Your task to perform on an android device: Go to Wikipedia Image 0: 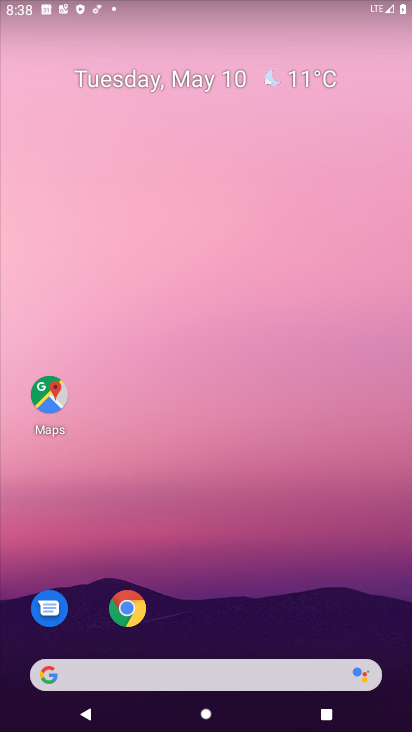
Step 0: press home button
Your task to perform on an android device: Go to Wikipedia Image 1: 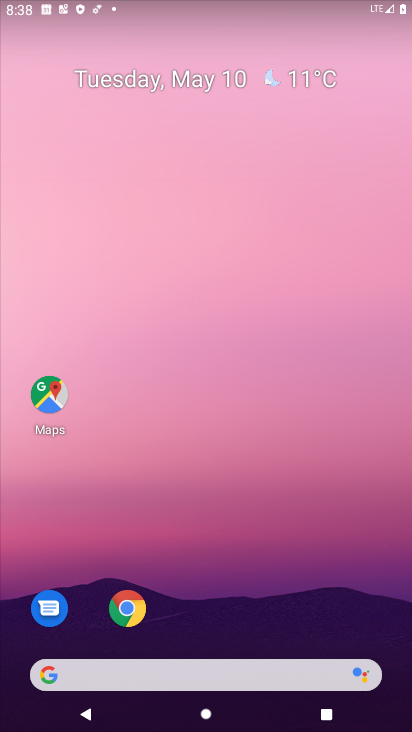
Step 1: click (129, 617)
Your task to perform on an android device: Go to Wikipedia Image 2: 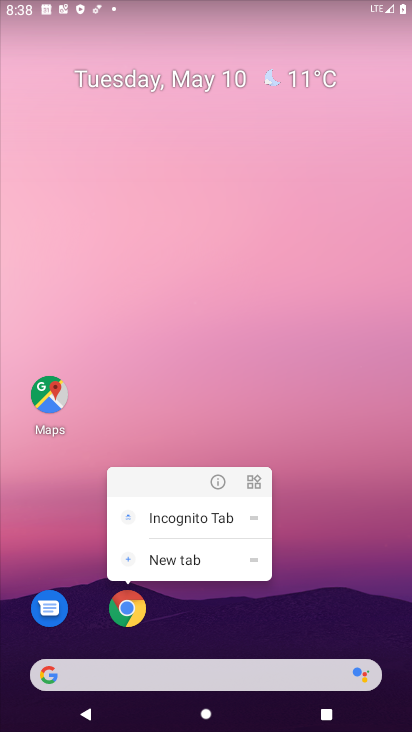
Step 2: click (130, 610)
Your task to perform on an android device: Go to Wikipedia Image 3: 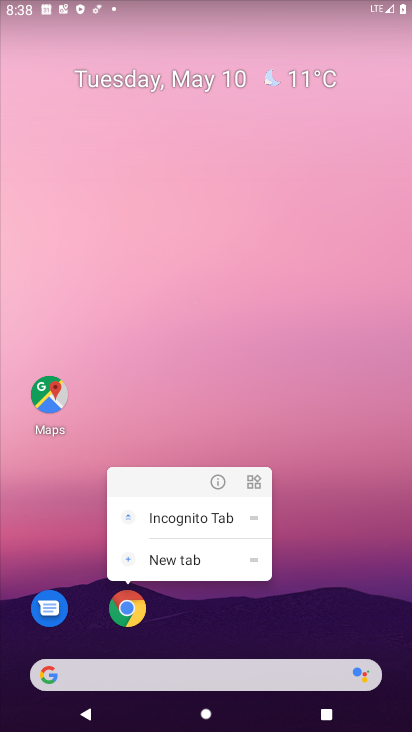
Step 3: click (145, 594)
Your task to perform on an android device: Go to Wikipedia Image 4: 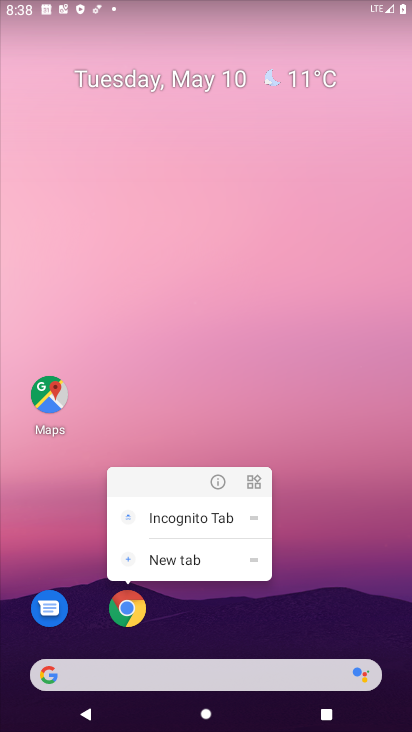
Step 4: click (144, 598)
Your task to perform on an android device: Go to Wikipedia Image 5: 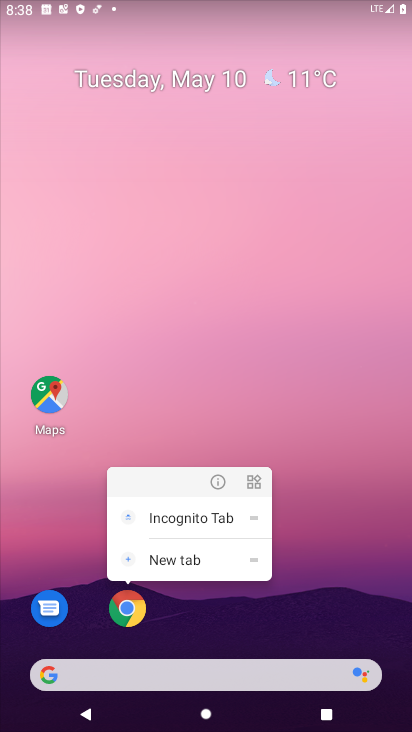
Step 5: drag from (193, 671) to (314, 176)
Your task to perform on an android device: Go to Wikipedia Image 6: 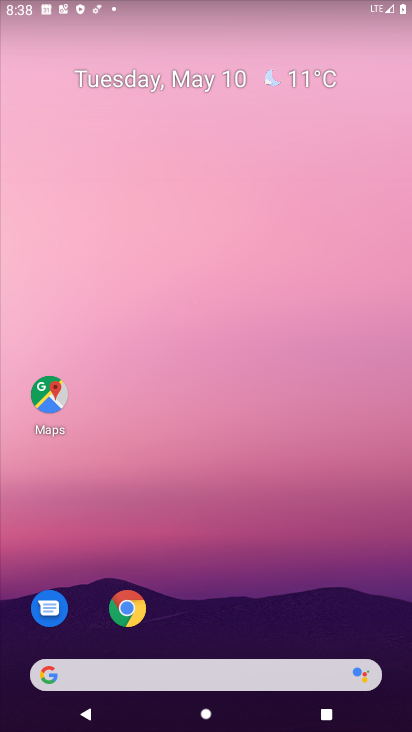
Step 6: drag from (187, 675) to (351, 120)
Your task to perform on an android device: Go to Wikipedia Image 7: 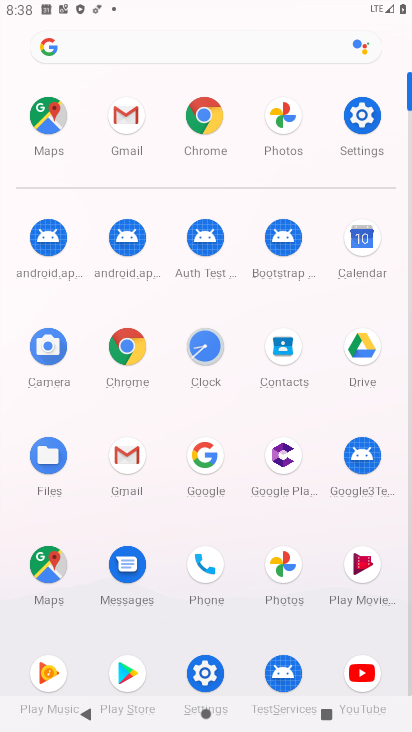
Step 7: click (206, 121)
Your task to perform on an android device: Go to Wikipedia Image 8: 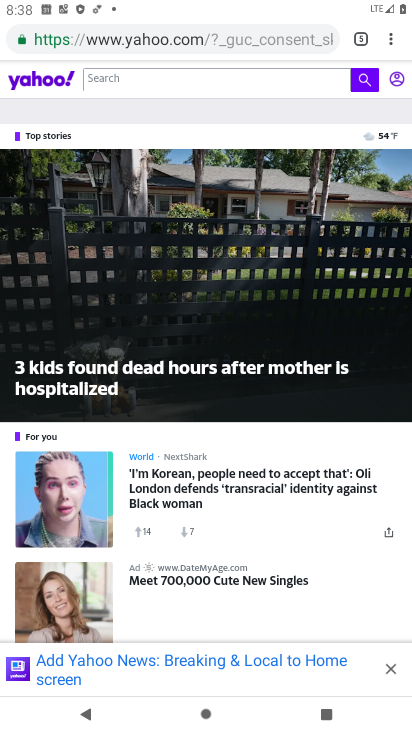
Step 8: drag from (396, 43) to (340, 76)
Your task to perform on an android device: Go to Wikipedia Image 9: 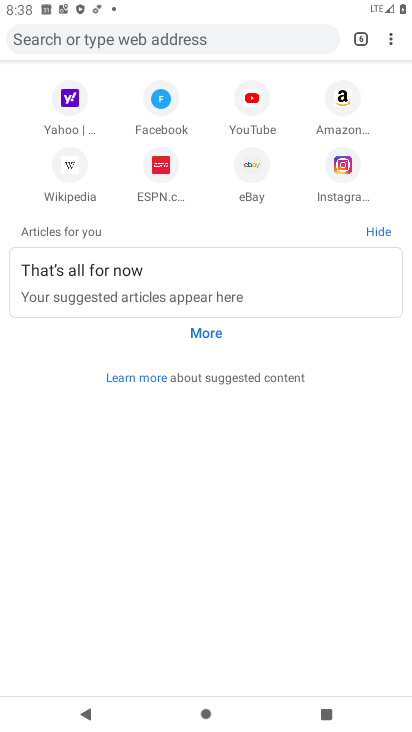
Step 9: click (67, 170)
Your task to perform on an android device: Go to Wikipedia Image 10: 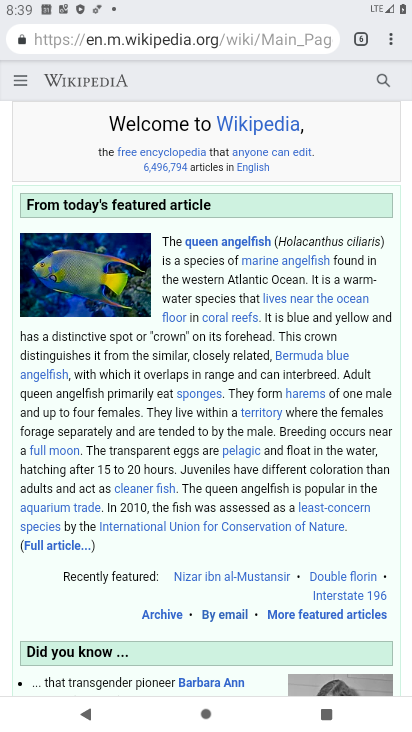
Step 10: task complete